Your task to perform on an android device: change keyboard looks Image 0: 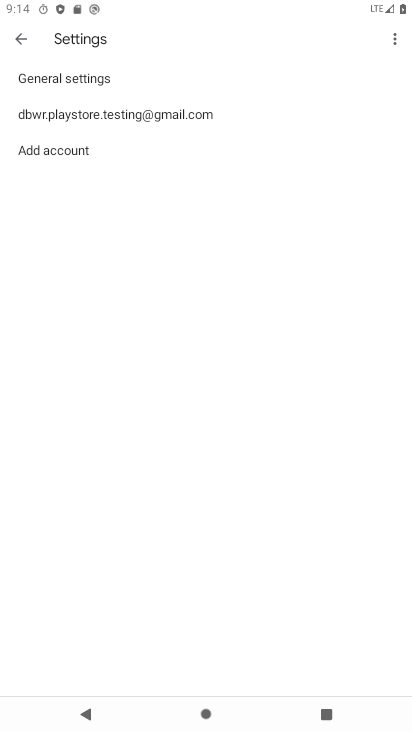
Step 0: press home button
Your task to perform on an android device: change keyboard looks Image 1: 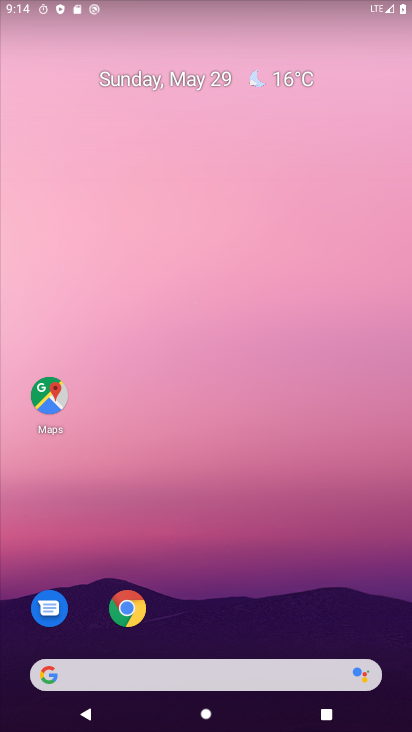
Step 1: drag from (205, 651) to (181, 1)
Your task to perform on an android device: change keyboard looks Image 2: 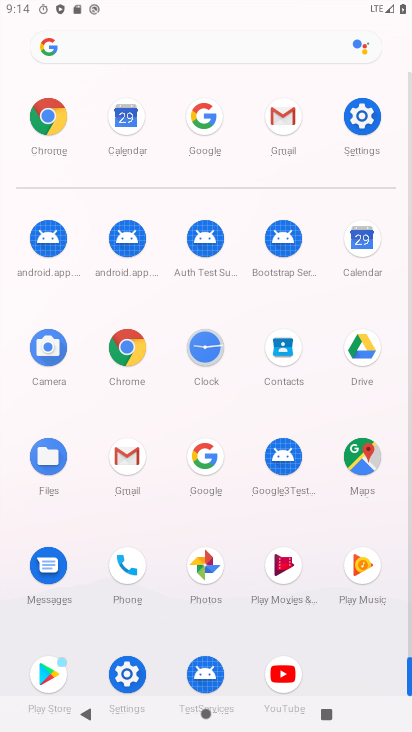
Step 2: click (376, 124)
Your task to perform on an android device: change keyboard looks Image 3: 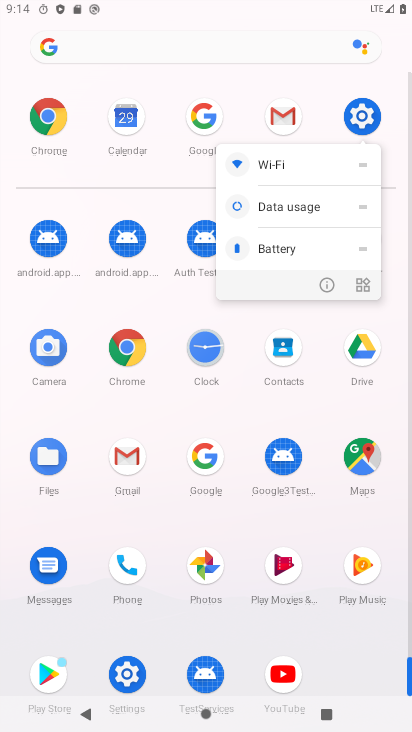
Step 3: click (375, 123)
Your task to perform on an android device: change keyboard looks Image 4: 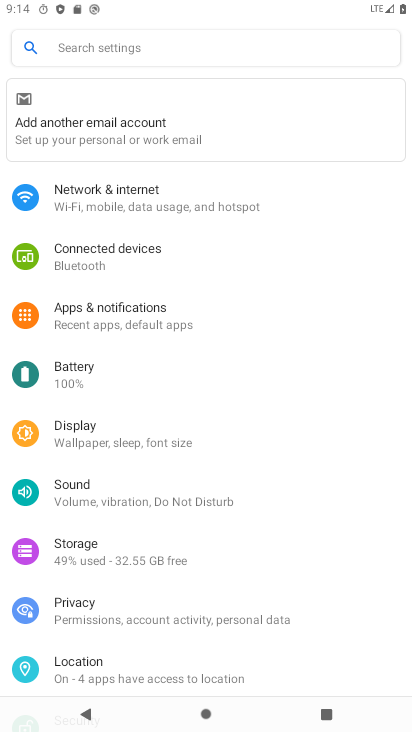
Step 4: drag from (105, 654) to (179, 29)
Your task to perform on an android device: change keyboard looks Image 5: 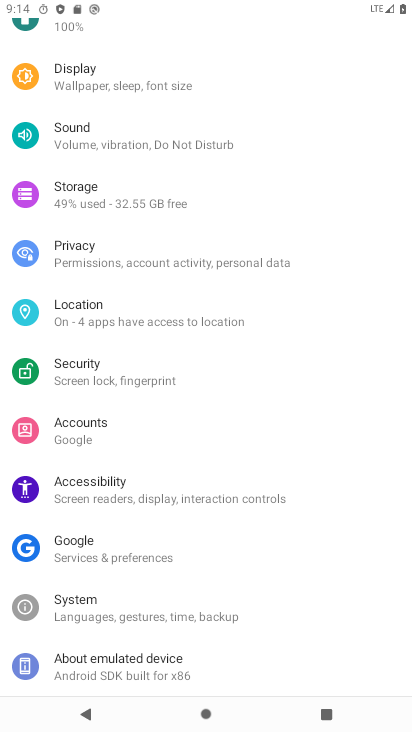
Step 5: click (83, 612)
Your task to perform on an android device: change keyboard looks Image 6: 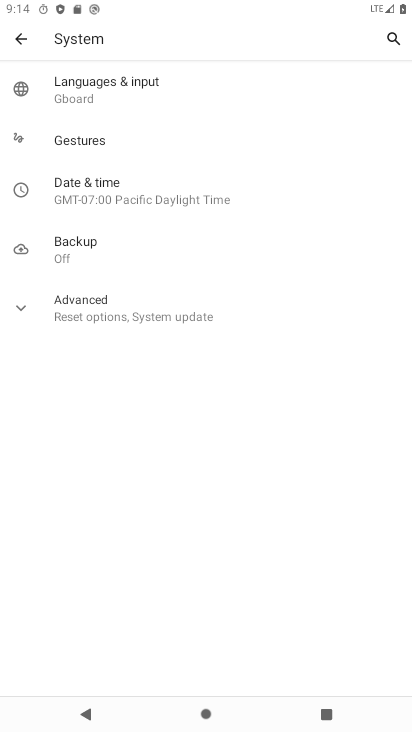
Step 6: click (130, 97)
Your task to perform on an android device: change keyboard looks Image 7: 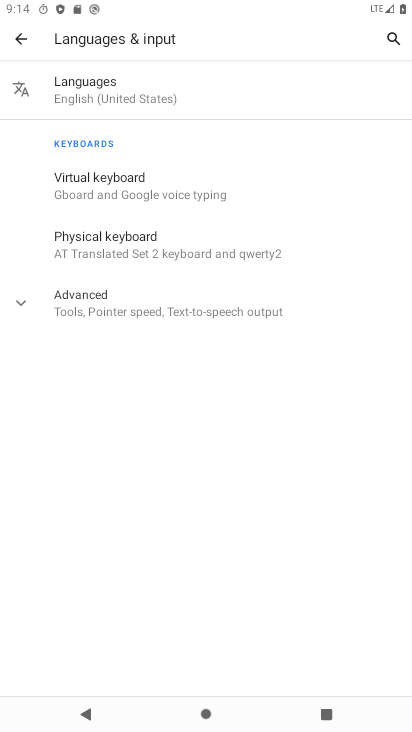
Step 7: click (98, 195)
Your task to perform on an android device: change keyboard looks Image 8: 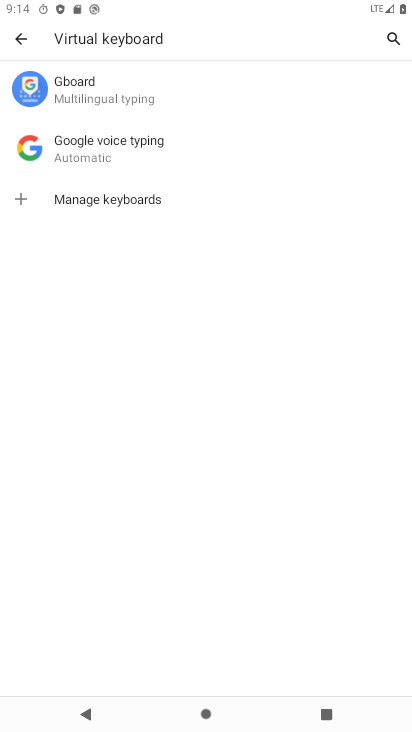
Step 8: click (69, 100)
Your task to perform on an android device: change keyboard looks Image 9: 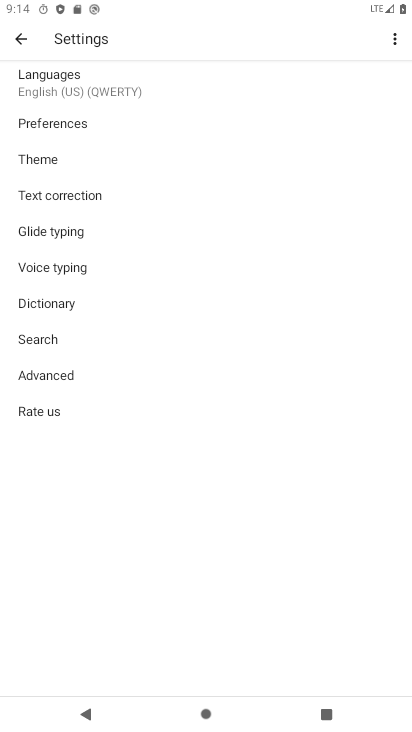
Step 9: click (41, 168)
Your task to perform on an android device: change keyboard looks Image 10: 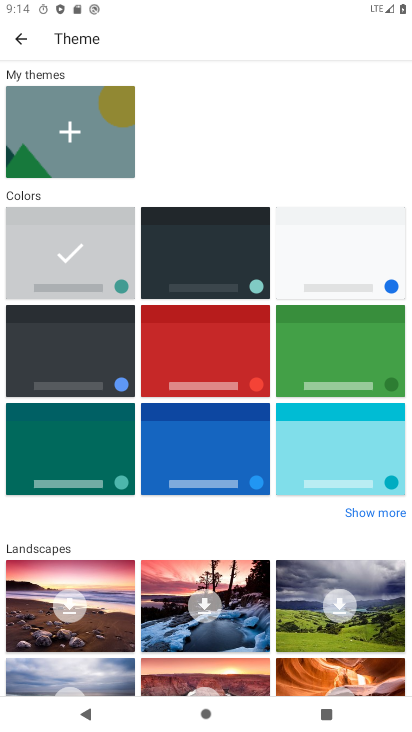
Step 10: click (191, 304)
Your task to perform on an android device: change keyboard looks Image 11: 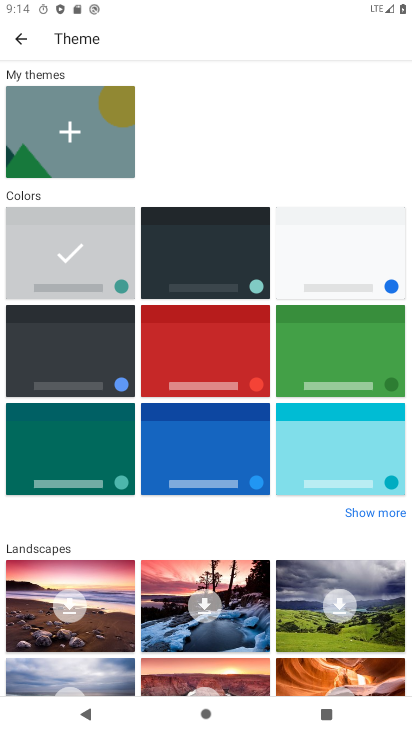
Step 11: click (233, 277)
Your task to perform on an android device: change keyboard looks Image 12: 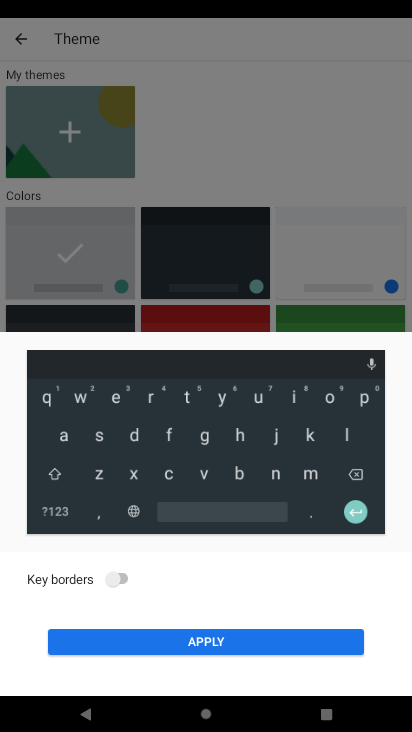
Step 12: click (180, 647)
Your task to perform on an android device: change keyboard looks Image 13: 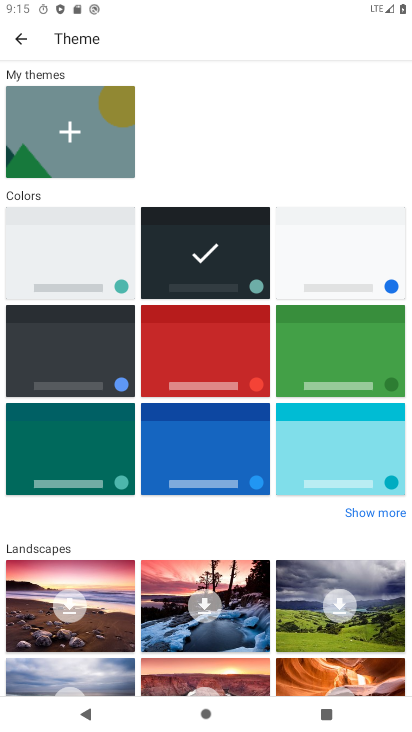
Step 13: task complete